Your task to perform on an android device: Empty the shopping cart on amazon. Add logitech g pro to the cart on amazon Image 0: 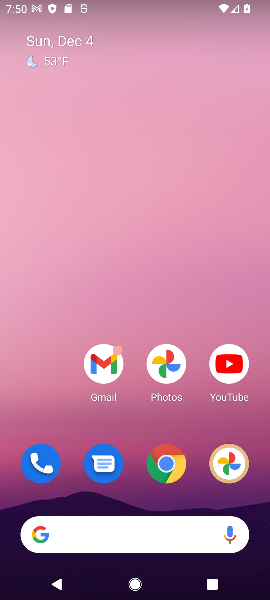
Step 0: click (161, 540)
Your task to perform on an android device: Empty the shopping cart on amazon. Add logitech g pro to the cart on amazon Image 1: 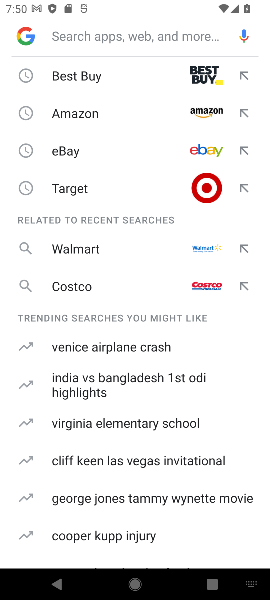
Step 1: type "amazon "
Your task to perform on an android device: Empty the shopping cart on amazon. Add logitech g pro to the cart on amazon Image 2: 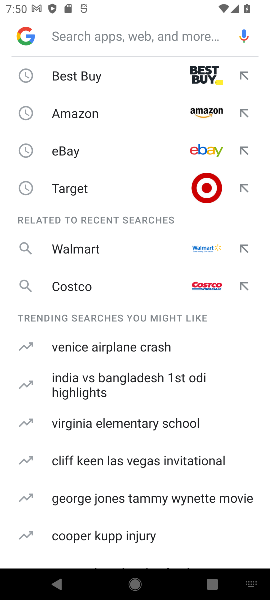
Step 2: click (105, 113)
Your task to perform on an android device: Empty the shopping cart on amazon. Add logitech g pro to the cart on amazon Image 3: 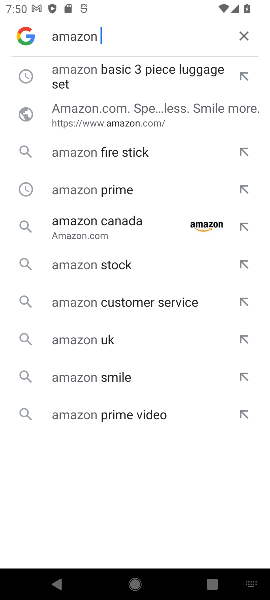
Step 3: click (143, 72)
Your task to perform on an android device: Empty the shopping cart on amazon. Add logitech g pro to the cart on amazon Image 4: 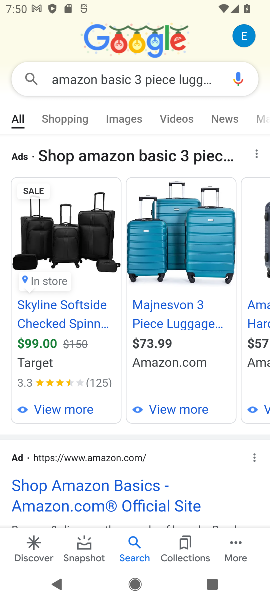
Step 4: click (78, 498)
Your task to perform on an android device: Empty the shopping cart on amazon. Add logitech g pro to the cart on amazon Image 5: 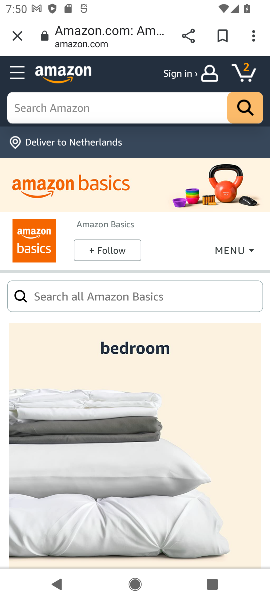
Step 5: task complete